Your task to perform on an android device: Search for Italian restaurants on Maps Image 0: 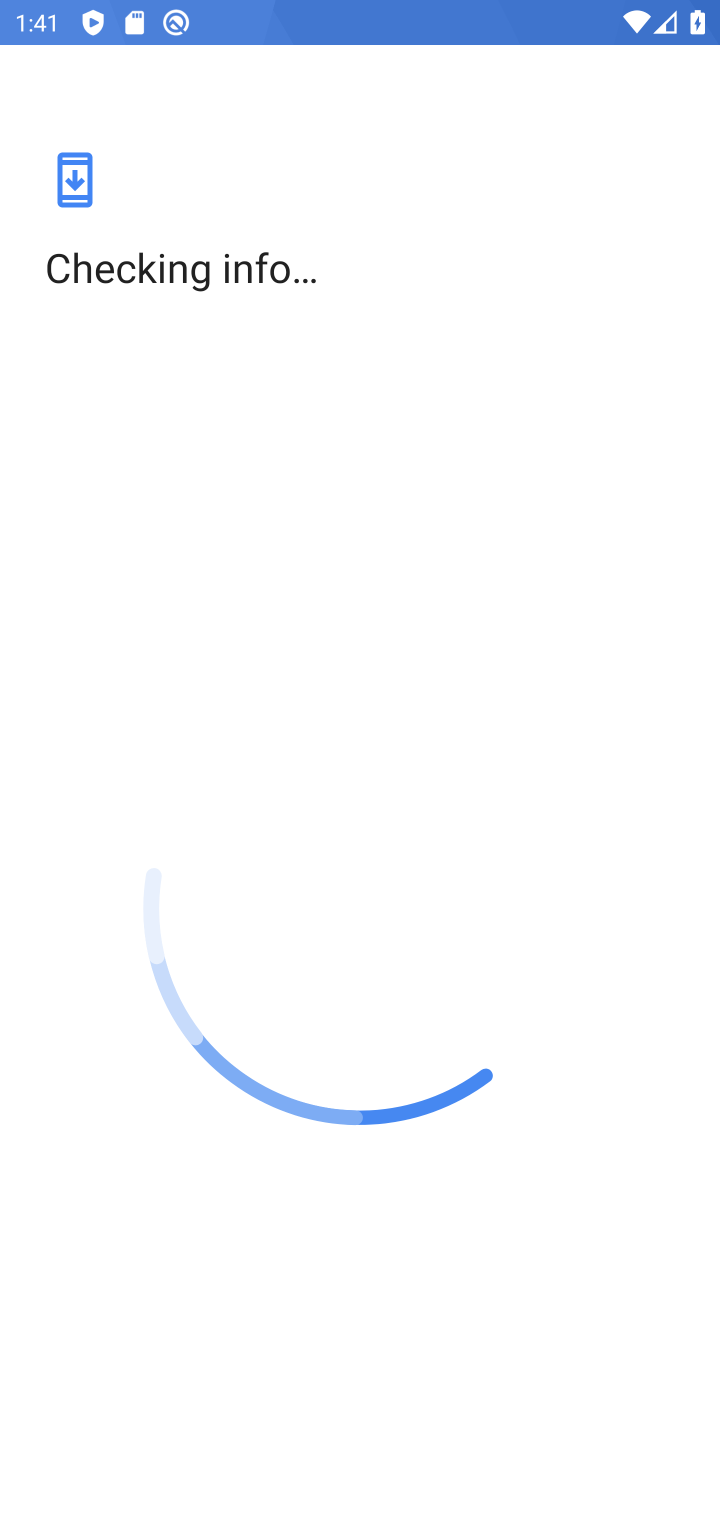
Step 0: press home button
Your task to perform on an android device: Search for Italian restaurants on Maps Image 1: 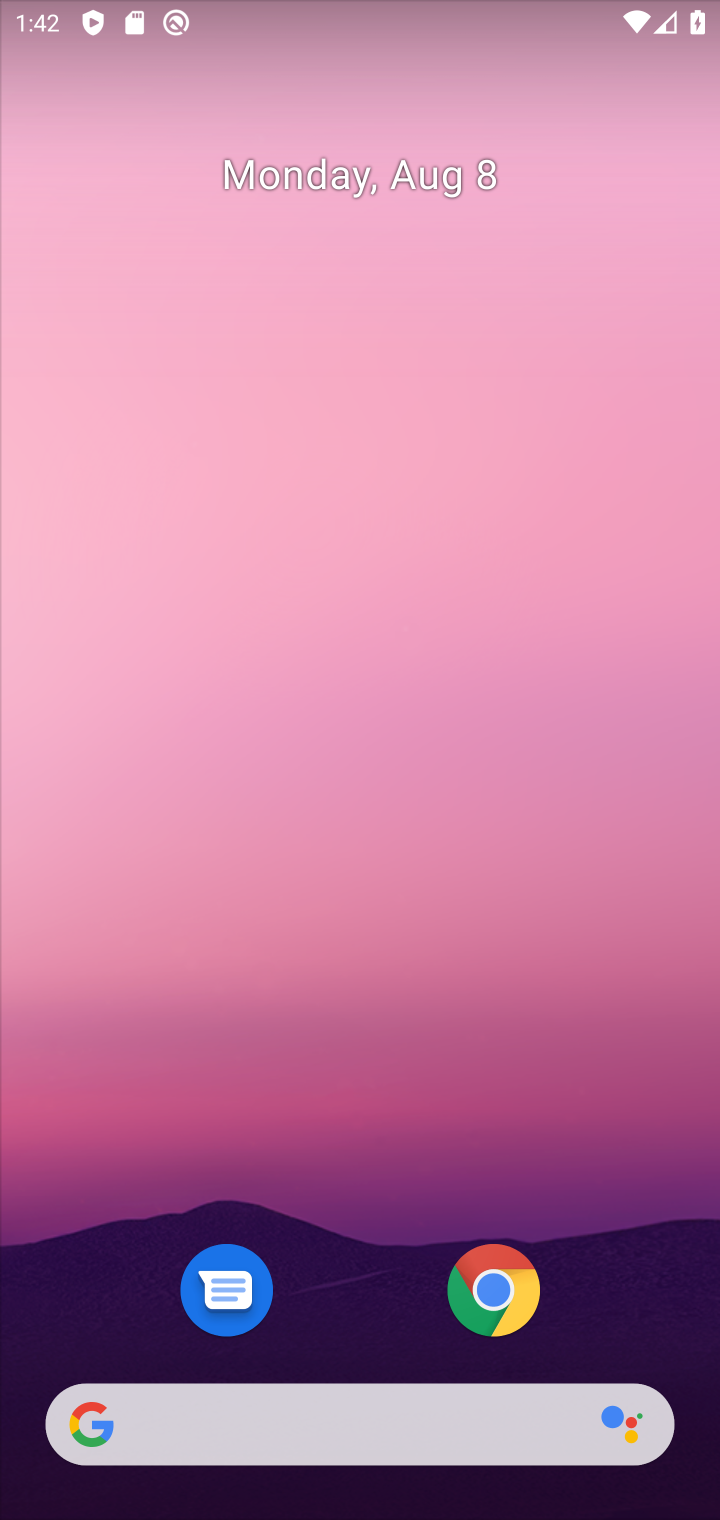
Step 1: drag from (287, 1419) to (218, 537)
Your task to perform on an android device: Search for Italian restaurants on Maps Image 2: 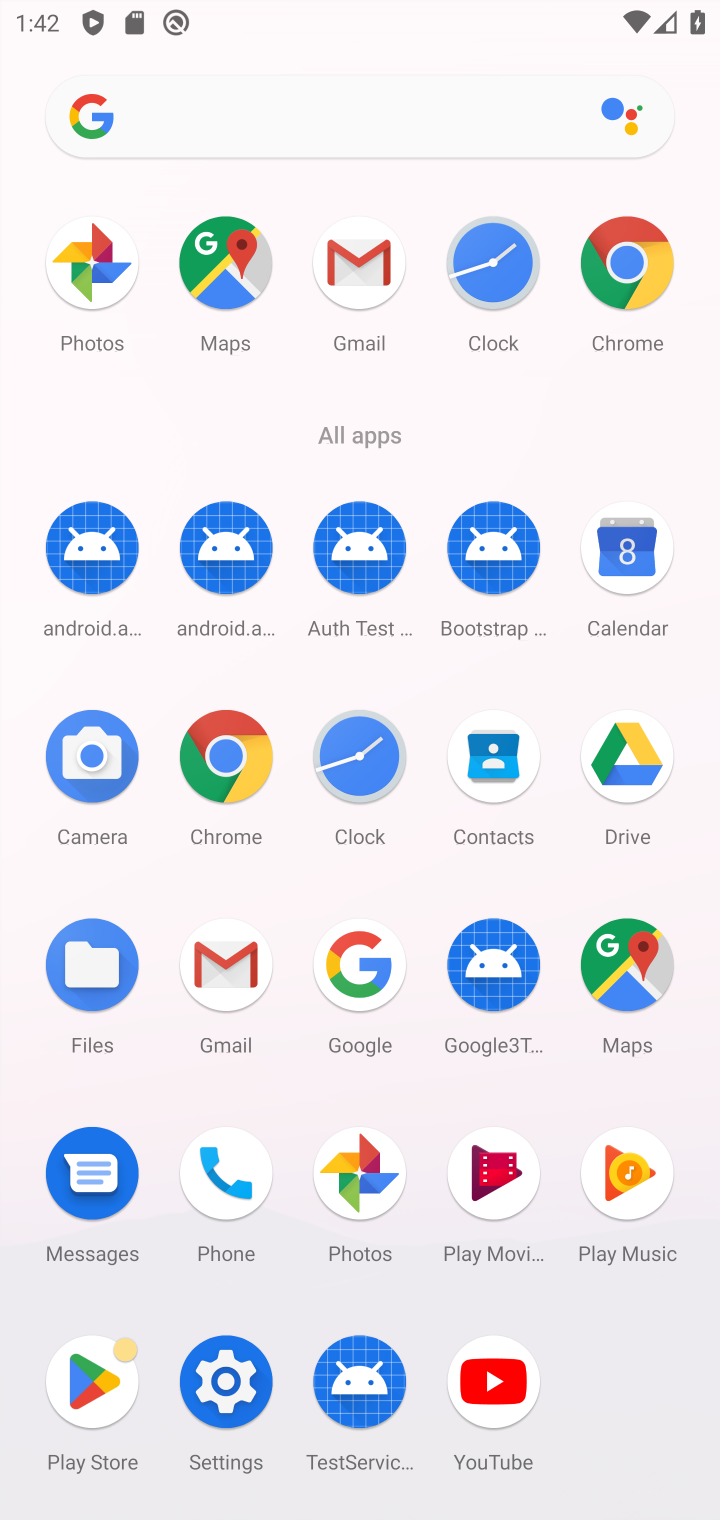
Step 2: click (627, 971)
Your task to perform on an android device: Search for Italian restaurants on Maps Image 3: 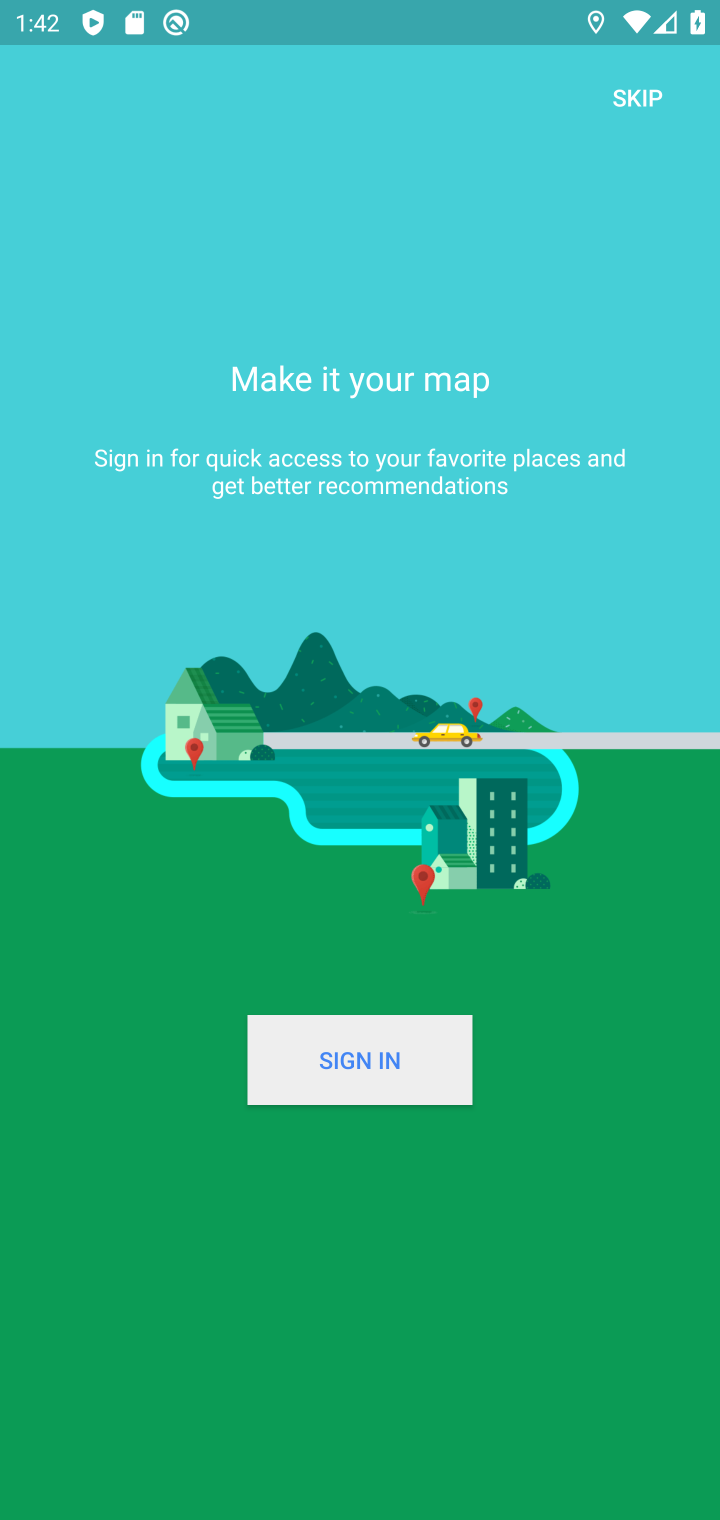
Step 3: click (652, 90)
Your task to perform on an android device: Search for Italian restaurants on Maps Image 4: 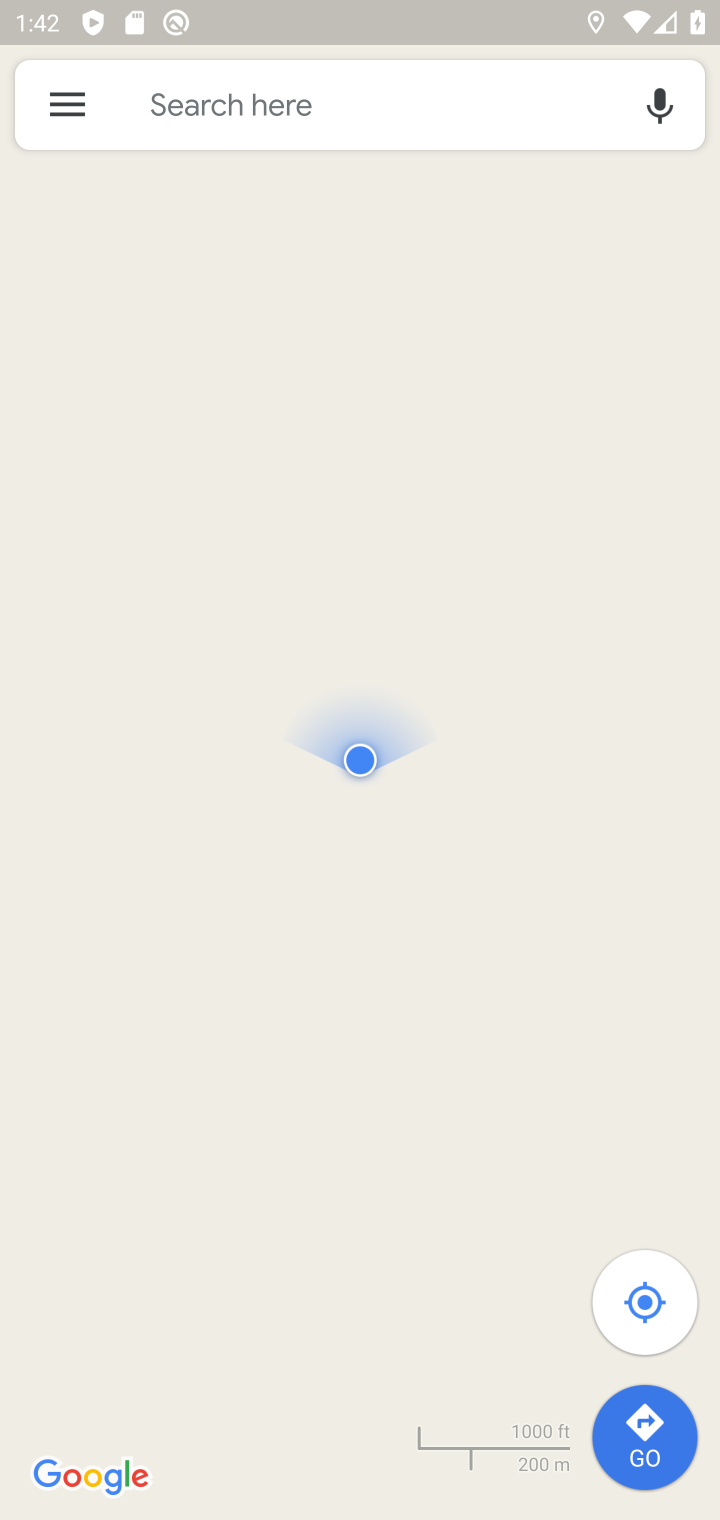
Step 4: click (404, 116)
Your task to perform on an android device: Search for Italian restaurants on Maps Image 5: 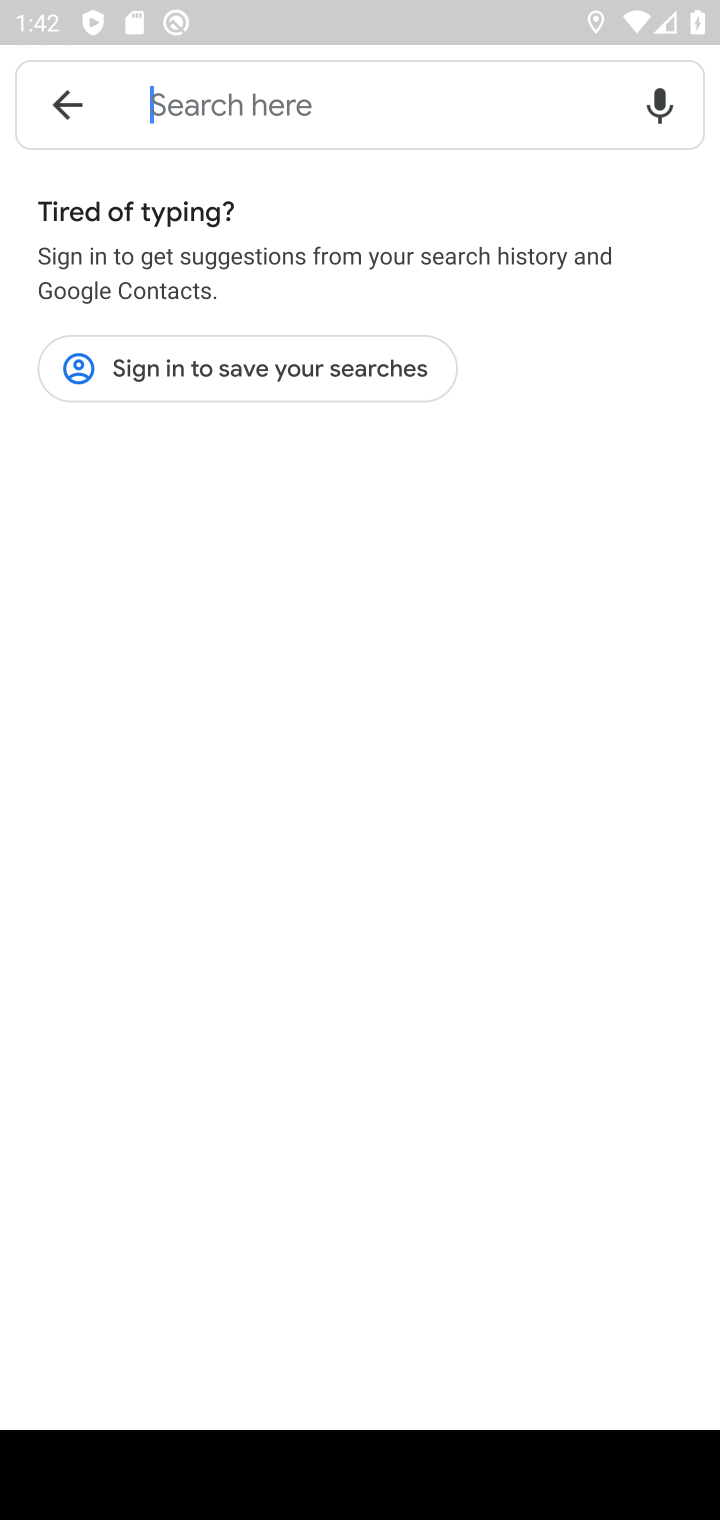
Step 5: type "Italian restaurants"
Your task to perform on an android device: Search for Italian restaurants on Maps Image 6: 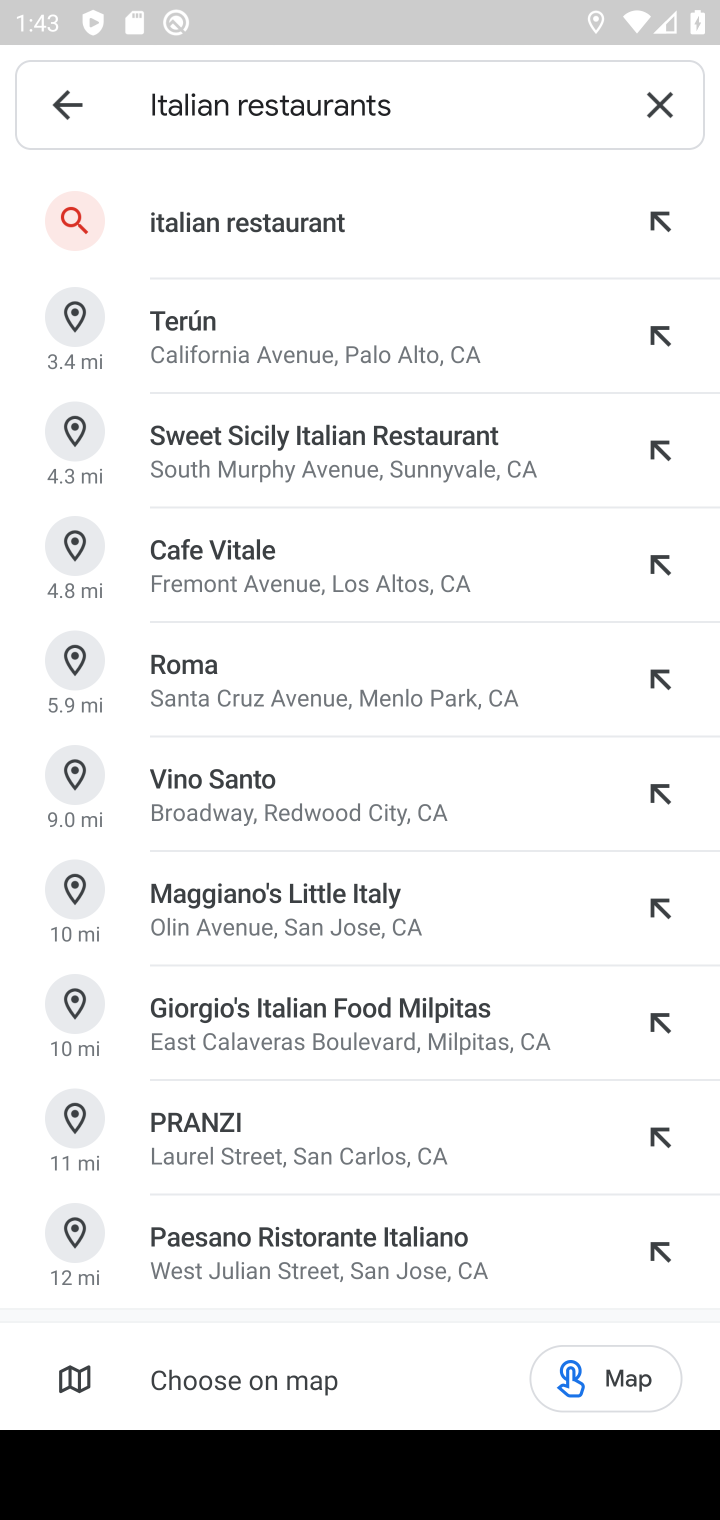
Step 6: click (296, 218)
Your task to perform on an android device: Search for Italian restaurants on Maps Image 7: 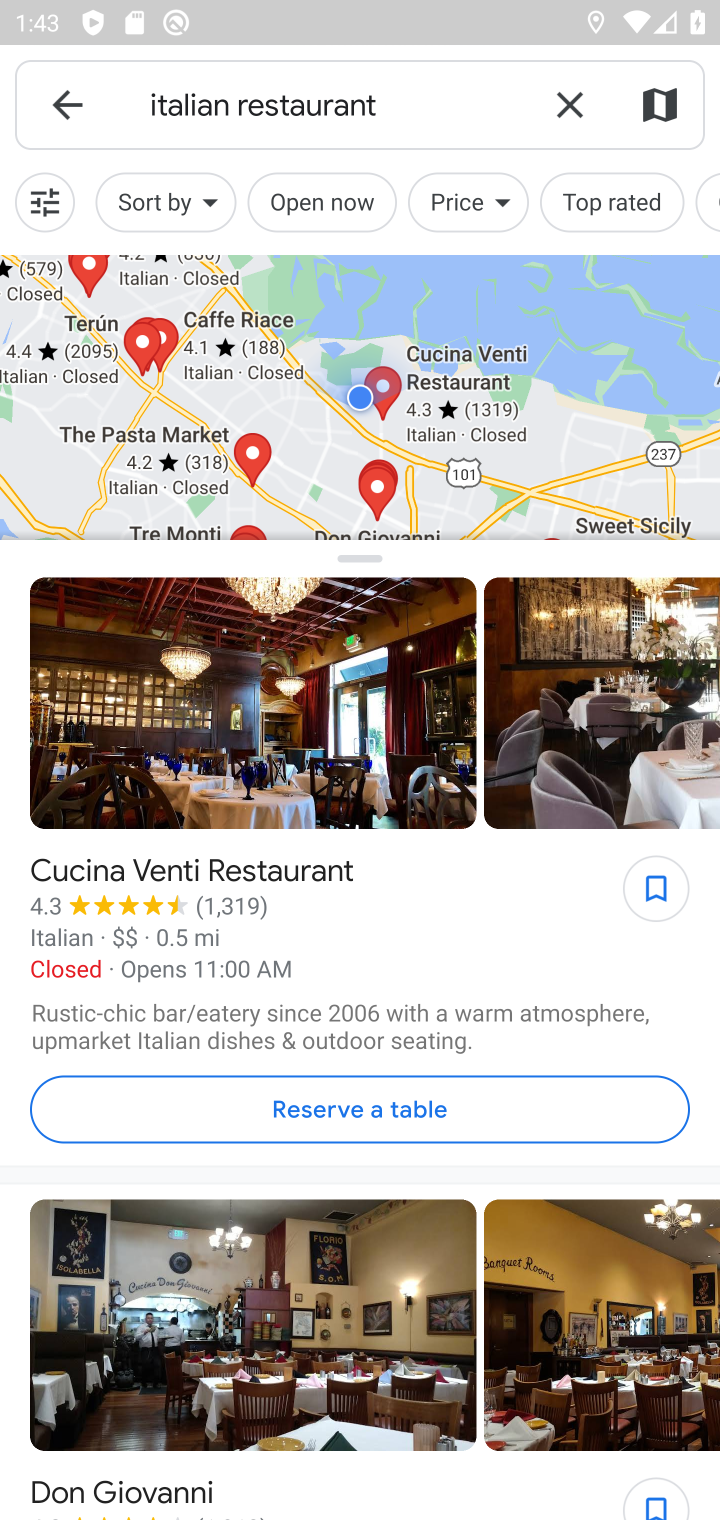
Step 7: task complete